Your task to perform on an android device: turn on javascript in the chrome app Image 0: 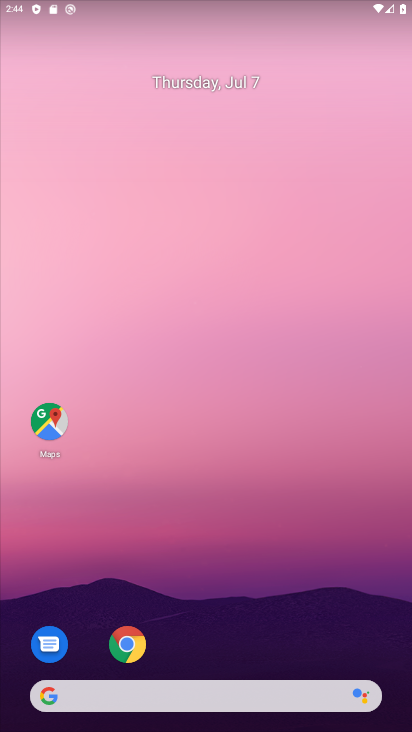
Step 0: click (186, 318)
Your task to perform on an android device: turn on javascript in the chrome app Image 1: 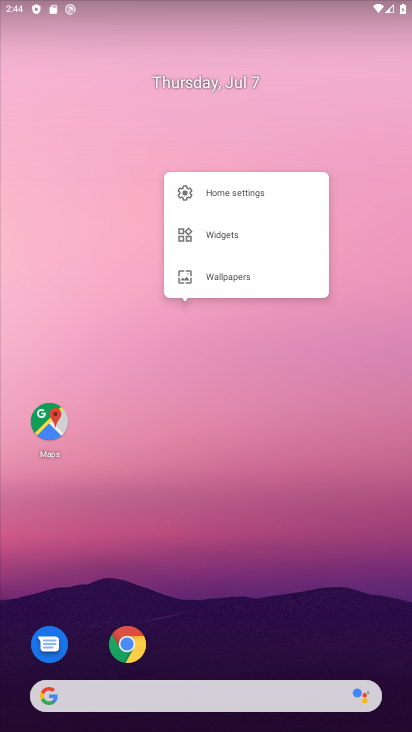
Step 1: click (132, 234)
Your task to perform on an android device: turn on javascript in the chrome app Image 2: 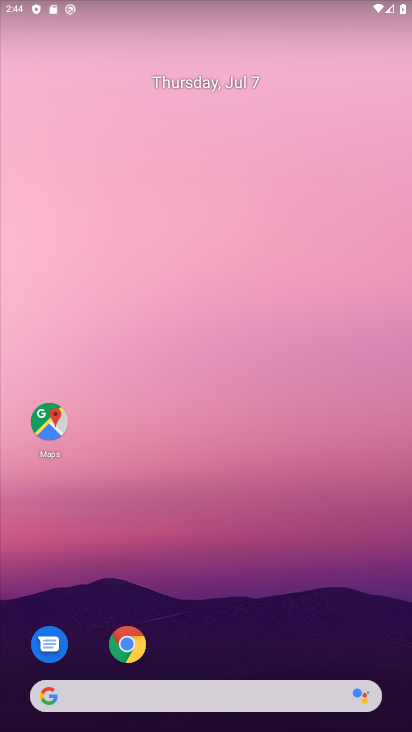
Step 2: click (39, 334)
Your task to perform on an android device: turn on javascript in the chrome app Image 3: 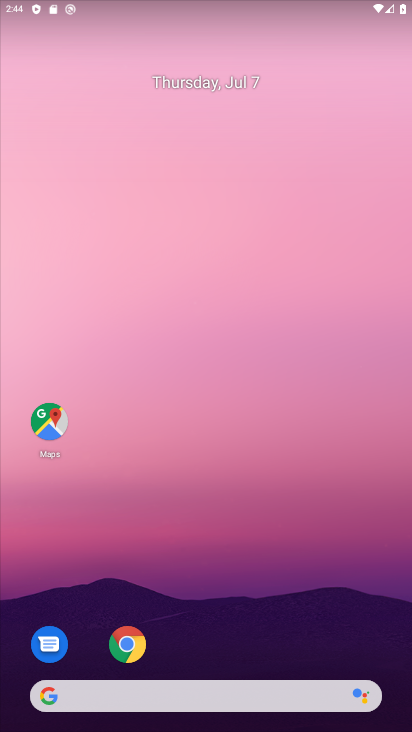
Step 3: click (112, 191)
Your task to perform on an android device: turn on javascript in the chrome app Image 4: 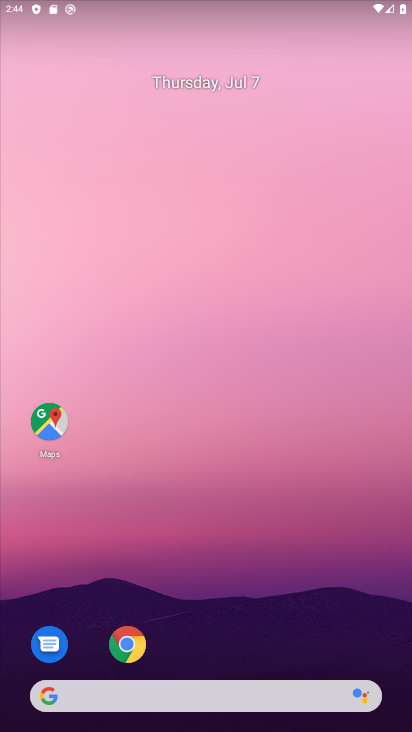
Step 4: drag from (269, 561) to (173, 236)
Your task to perform on an android device: turn on javascript in the chrome app Image 5: 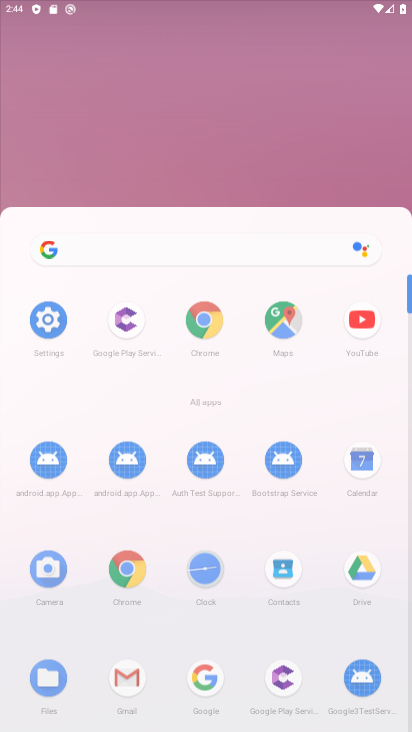
Step 5: drag from (218, 565) to (161, 438)
Your task to perform on an android device: turn on javascript in the chrome app Image 6: 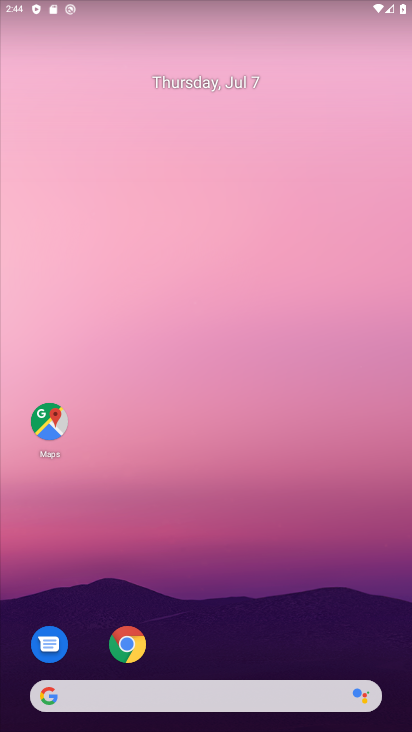
Step 6: drag from (196, 585) to (123, 129)
Your task to perform on an android device: turn on javascript in the chrome app Image 7: 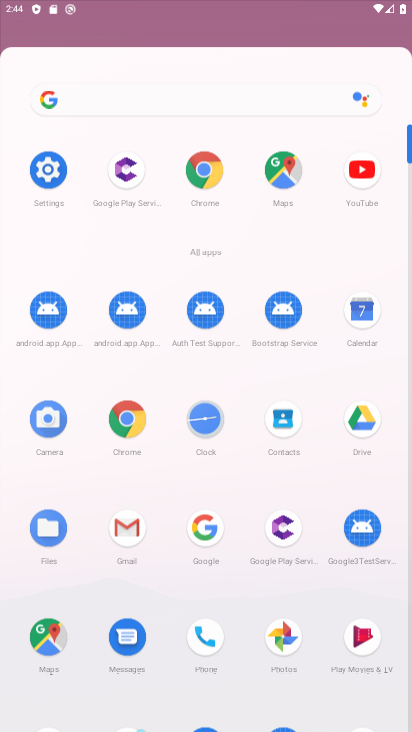
Step 7: drag from (296, 592) to (186, 20)
Your task to perform on an android device: turn on javascript in the chrome app Image 8: 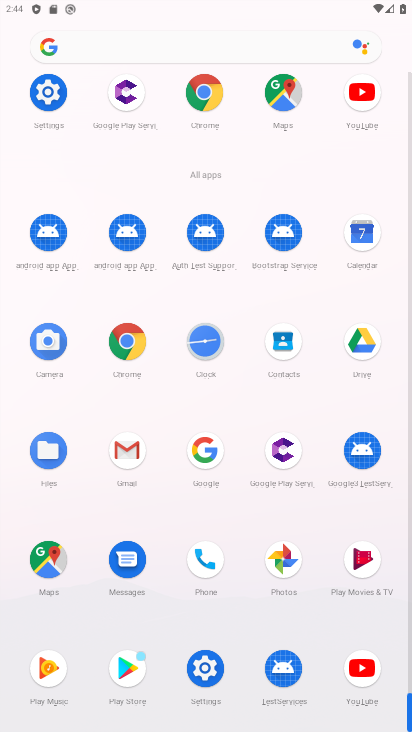
Step 8: click (116, 336)
Your task to perform on an android device: turn on javascript in the chrome app Image 9: 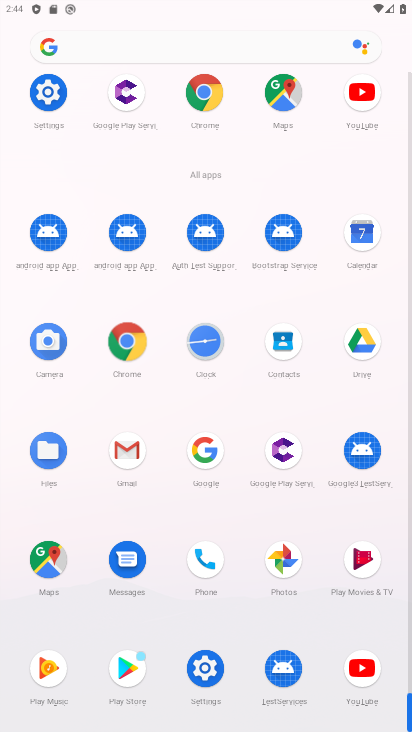
Step 9: click (121, 336)
Your task to perform on an android device: turn on javascript in the chrome app Image 10: 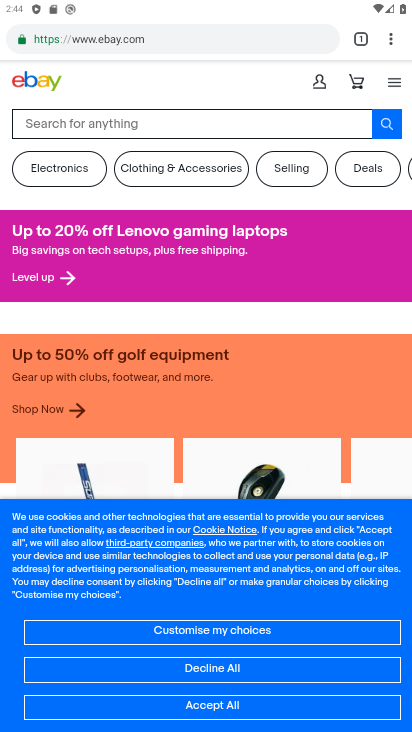
Step 10: drag from (385, 39) to (238, 473)
Your task to perform on an android device: turn on javascript in the chrome app Image 11: 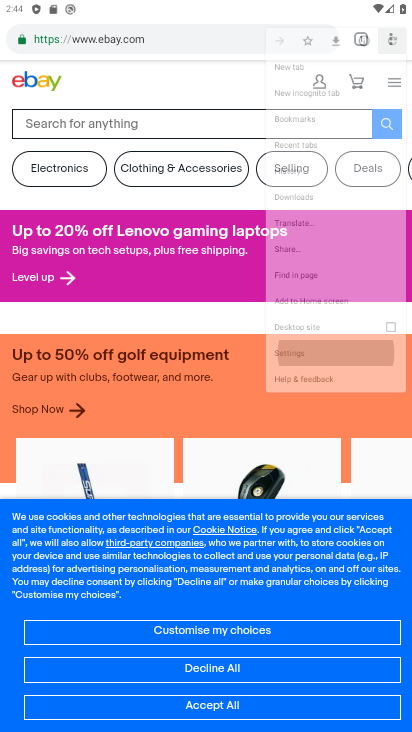
Step 11: click (235, 471)
Your task to perform on an android device: turn on javascript in the chrome app Image 12: 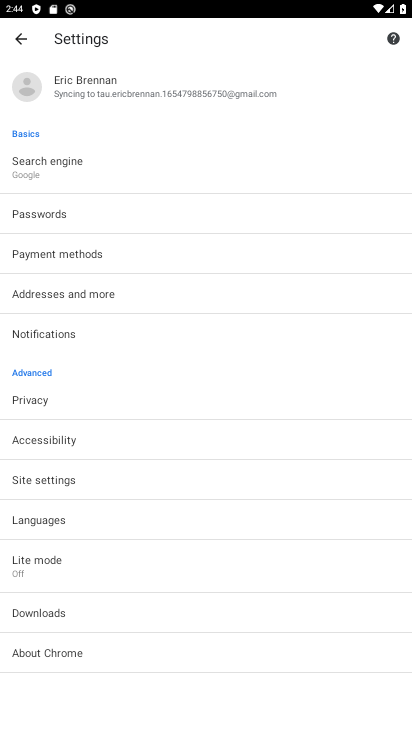
Step 12: click (33, 480)
Your task to perform on an android device: turn on javascript in the chrome app Image 13: 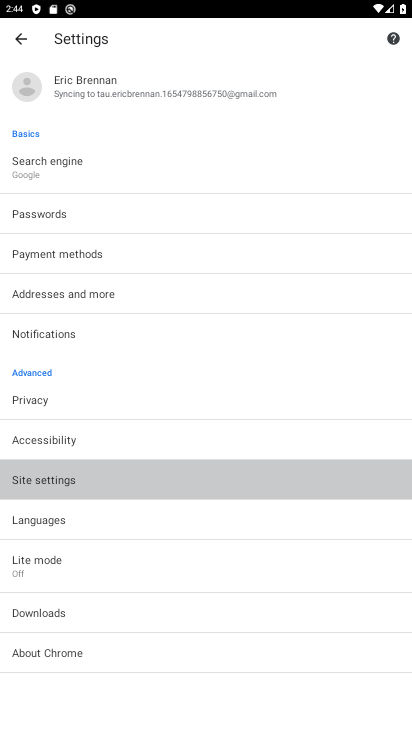
Step 13: click (38, 478)
Your task to perform on an android device: turn on javascript in the chrome app Image 14: 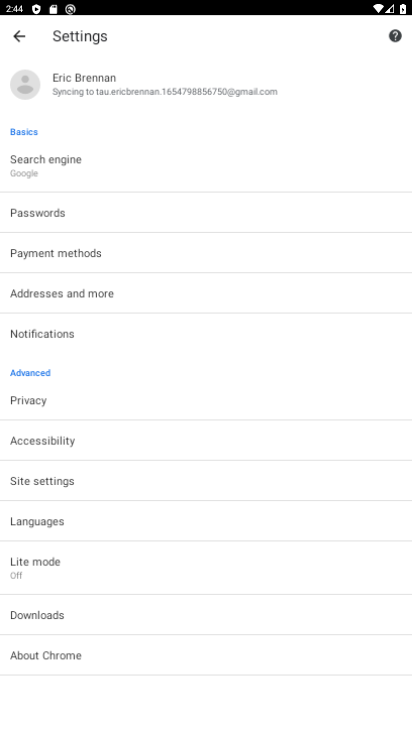
Step 14: click (45, 471)
Your task to perform on an android device: turn on javascript in the chrome app Image 15: 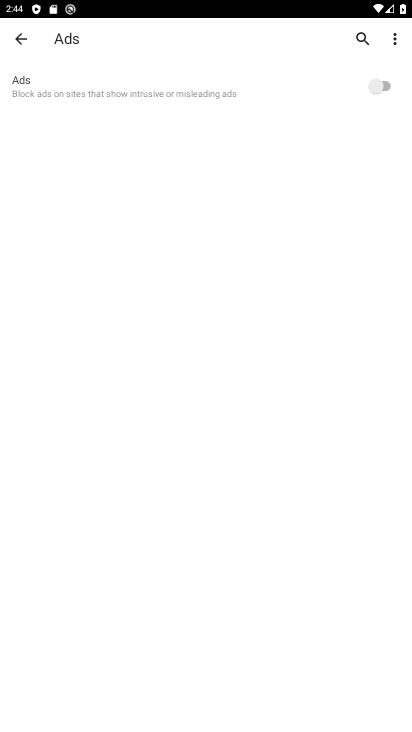
Step 15: click (19, 48)
Your task to perform on an android device: turn on javascript in the chrome app Image 16: 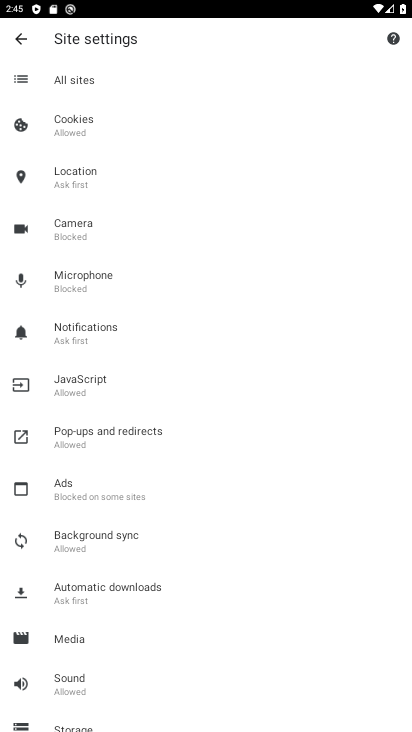
Step 16: click (73, 376)
Your task to perform on an android device: turn on javascript in the chrome app Image 17: 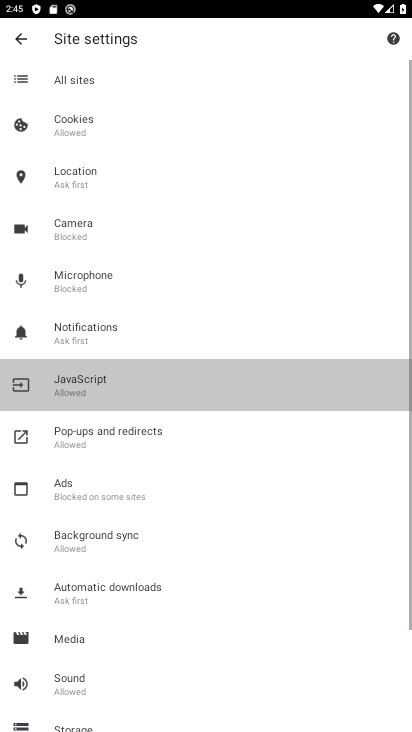
Step 17: click (73, 376)
Your task to perform on an android device: turn on javascript in the chrome app Image 18: 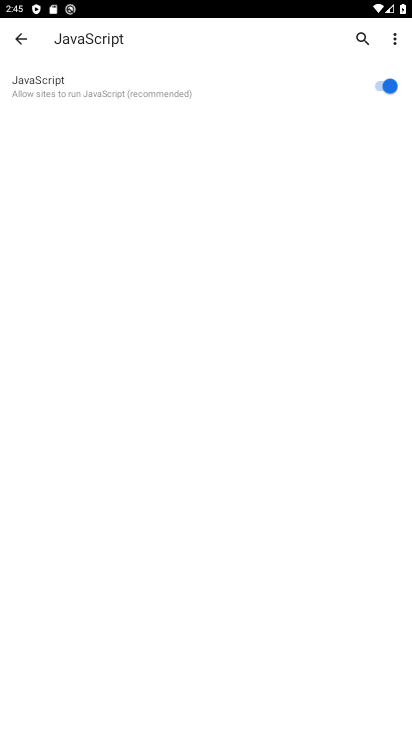
Step 18: task complete